Your task to perform on an android device: Go to CNN.com Image 0: 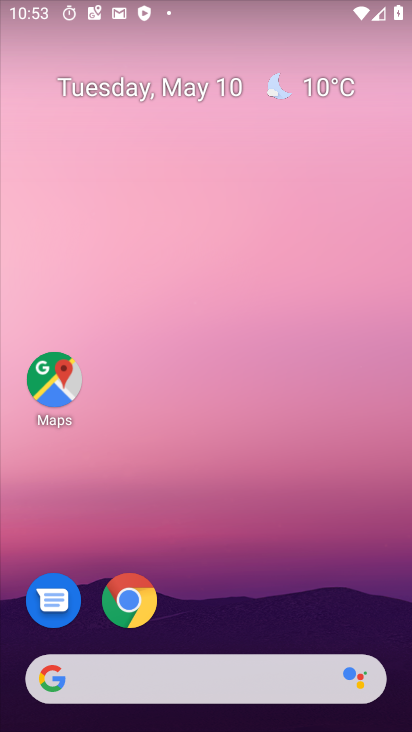
Step 0: drag from (259, 569) to (219, 33)
Your task to perform on an android device: Go to CNN.com Image 1: 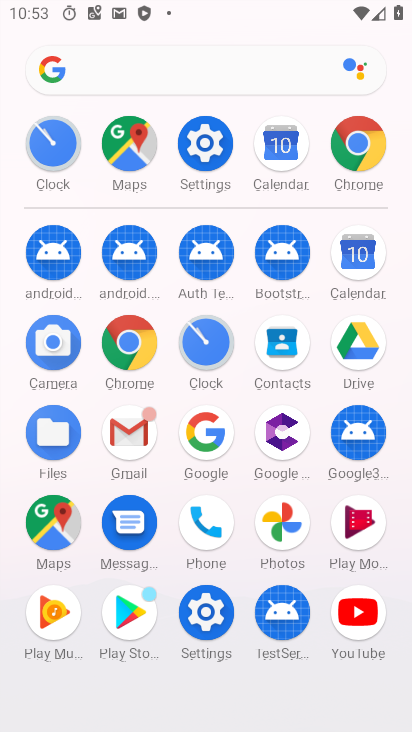
Step 1: drag from (3, 504) to (15, 239)
Your task to perform on an android device: Go to CNN.com Image 2: 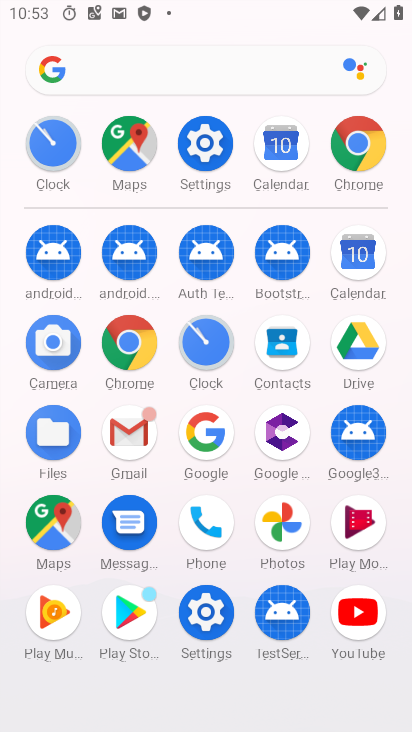
Step 2: click (130, 341)
Your task to perform on an android device: Go to CNN.com Image 3: 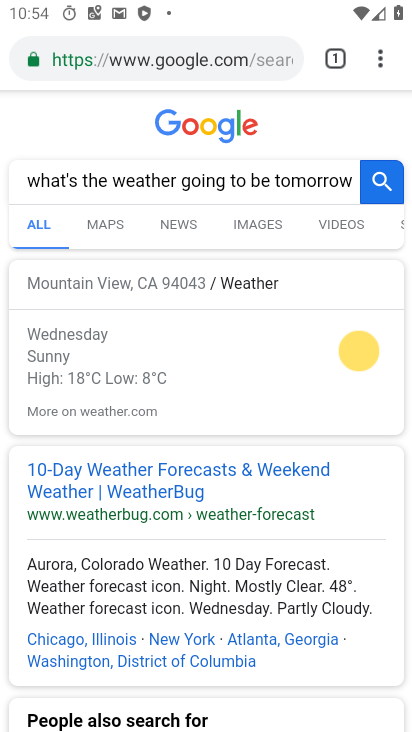
Step 3: click (192, 57)
Your task to perform on an android device: Go to CNN.com Image 4: 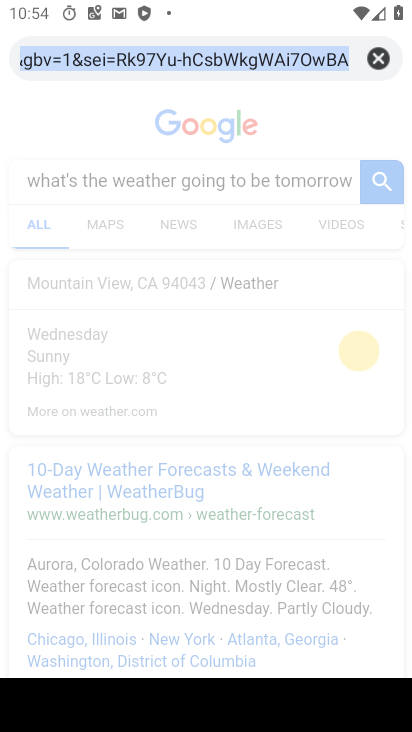
Step 4: click (380, 57)
Your task to perform on an android device: Go to CNN.com Image 5: 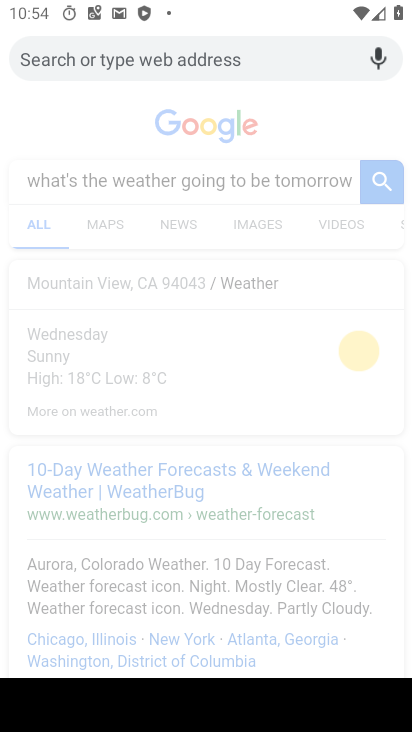
Step 5: type "Go to CNN.com"
Your task to perform on an android device: Go to CNN.com Image 6: 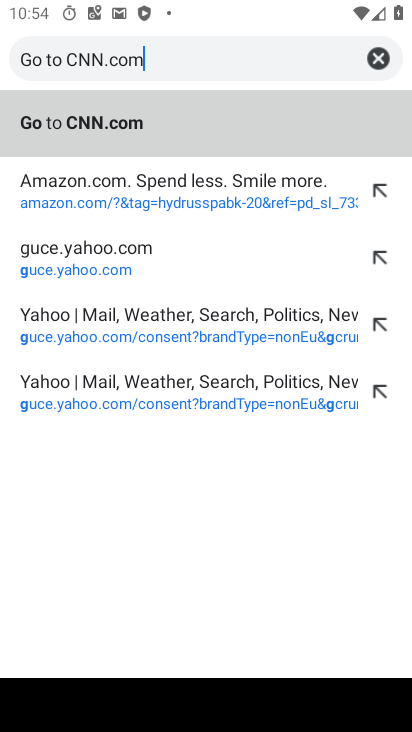
Step 6: type ""
Your task to perform on an android device: Go to CNN.com Image 7: 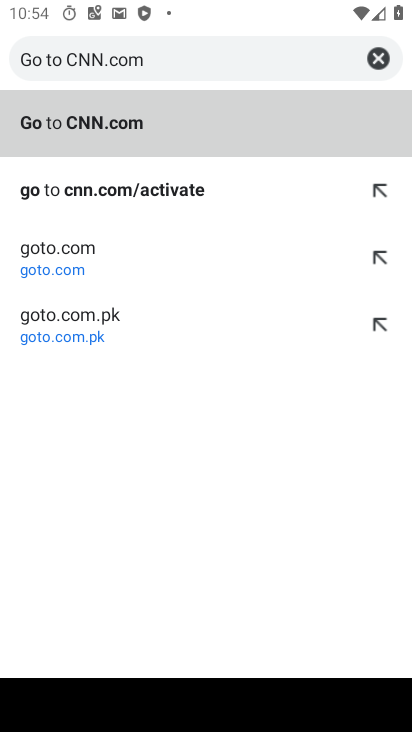
Step 7: click (104, 113)
Your task to perform on an android device: Go to CNN.com Image 8: 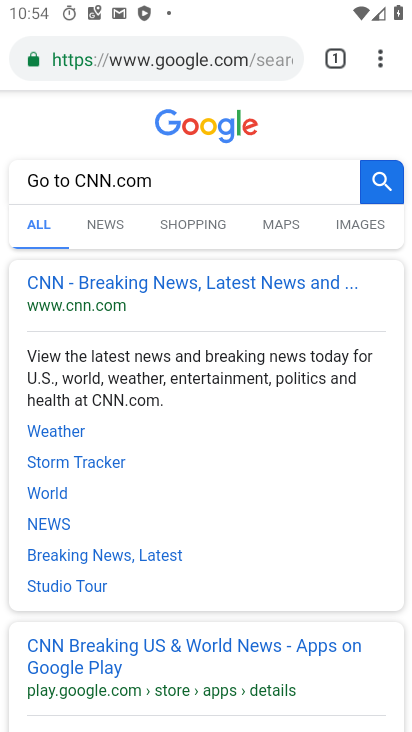
Step 8: click (87, 280)
Your task to perform on an android device: Go to CNN.com Image 9: 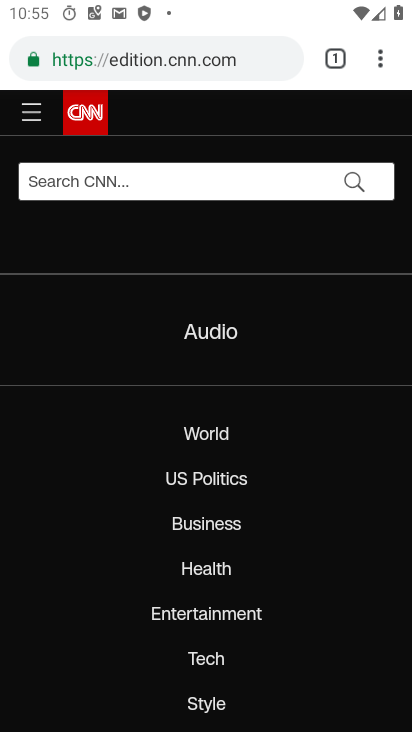
Step 9: task complete